Your task to perform on an android device: change notification settings in the gmail app Image 0: 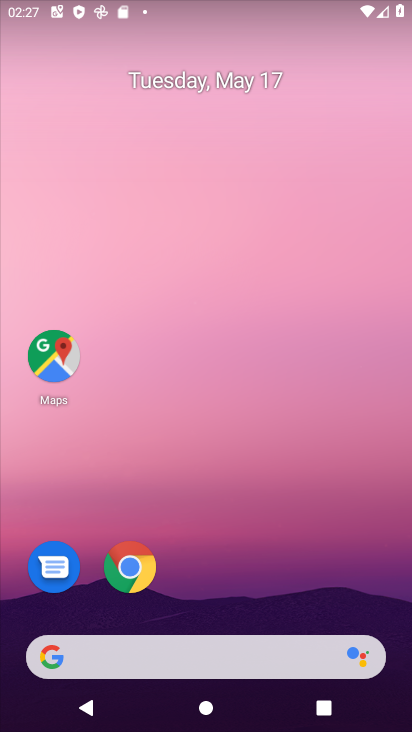
Step 0: drag from (379, 618) to (335, 140)
Your task to perform on an android device: change notification settings in the gmail app Image 1: 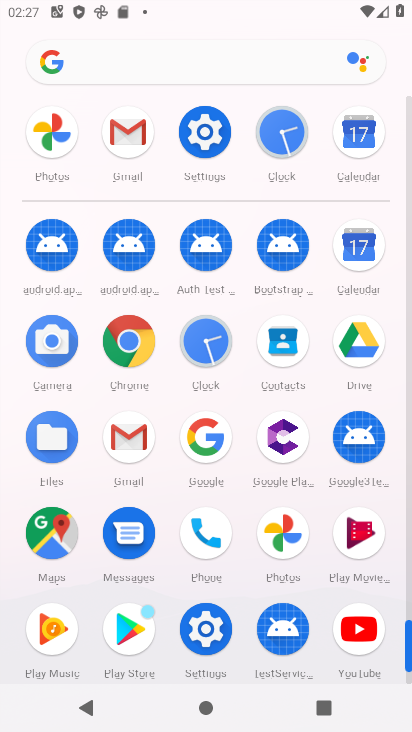
Step 1: click (125, 435)
Your task to perform on an android device: change notification settings in the gmail app Image 2: 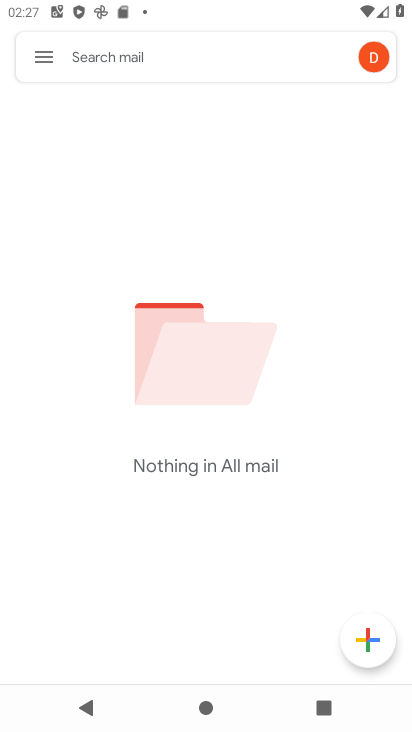
Step 2: click (39, 51)
Your task to perform on an android device: change notification settings in the gmail app Image 3: 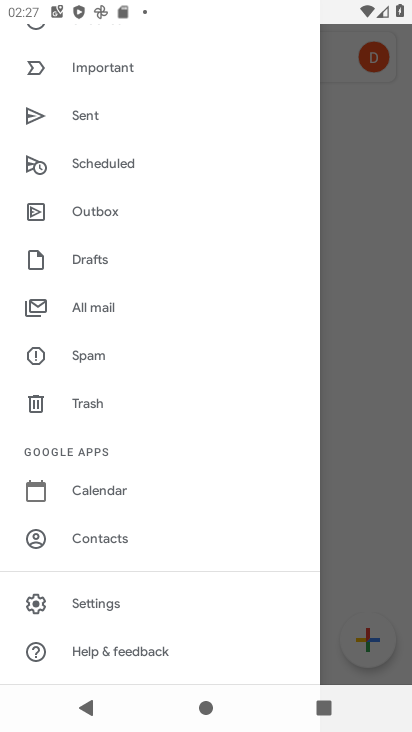
Step 3: click (113, 603)
Your task to perform on an android device: change notification settings in the gmail app Image 4: 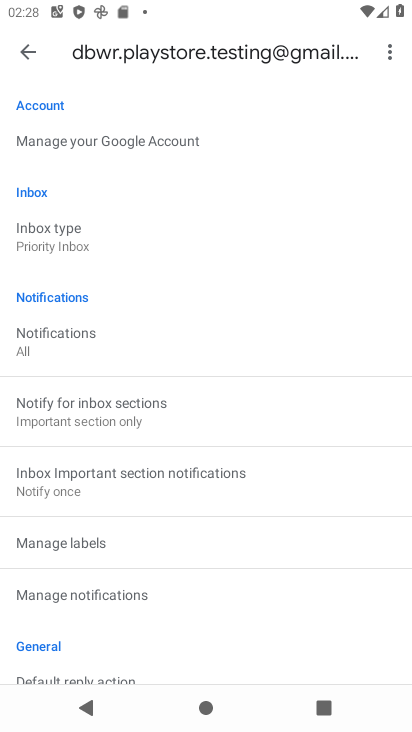
Step 4: click (59, 587)
Your task to perform on an android device: change notification settings in the gmail app Image 5: 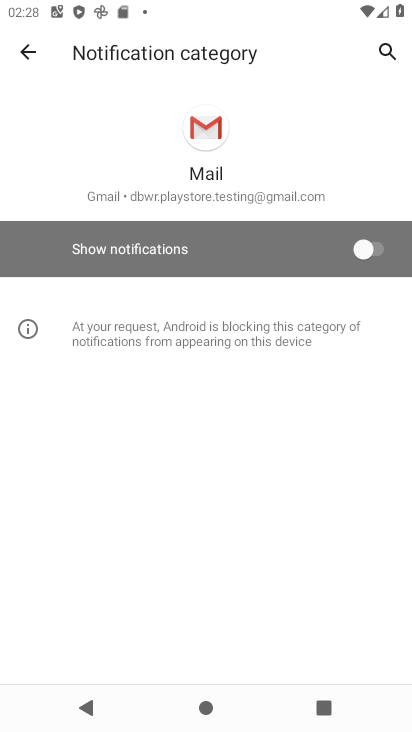
Step 5: click (376, 254)
Your task to perform on an android device: change notification settings in the gmail app Image 6: 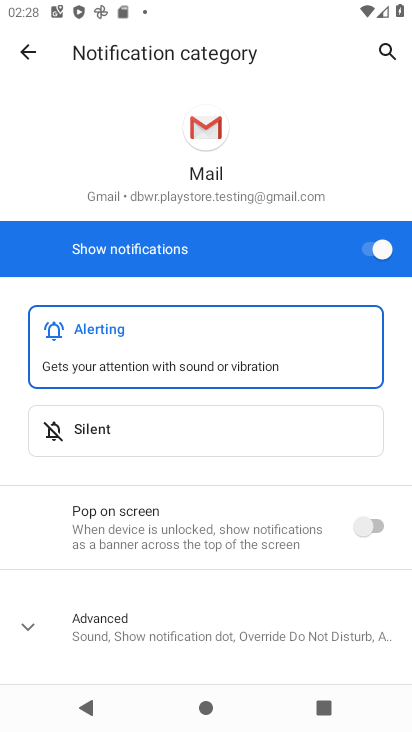
Step 6: task complete